Your task to perform on an android device: turn off location history Image 0: 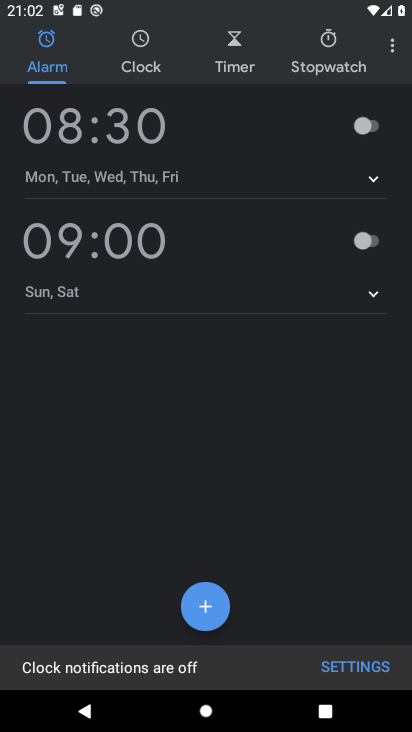
Step 0: press home button
Your task to perform on an android device: turn off location history Image 1: 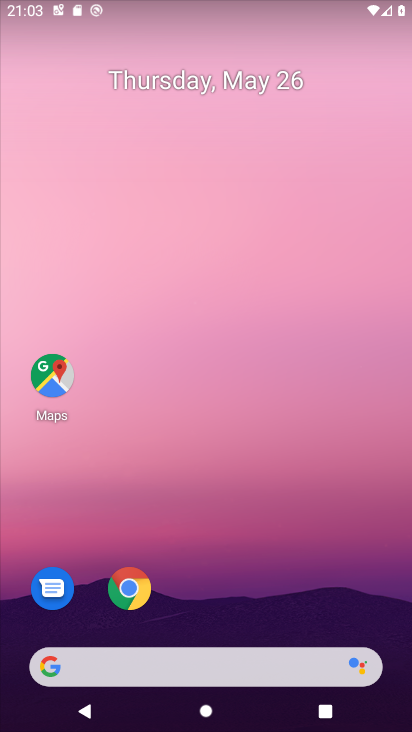
Step 1: drag from (241, 583) to (49, 418)
Your task to perform on an android device: turn off location history Image 2: 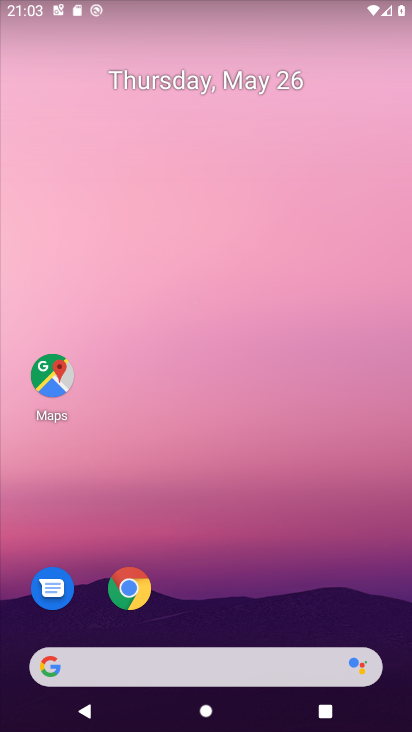
Step 2: drag from (282, 560) to (266, 0)
Your task to perform on an android device: turn off location history Image 3: 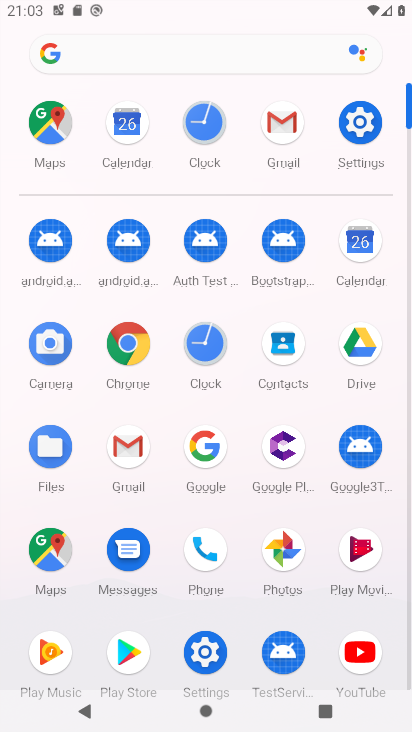
Step 3: click (192, 664)
Your task to perform on an android device: turn off location history Image 4: 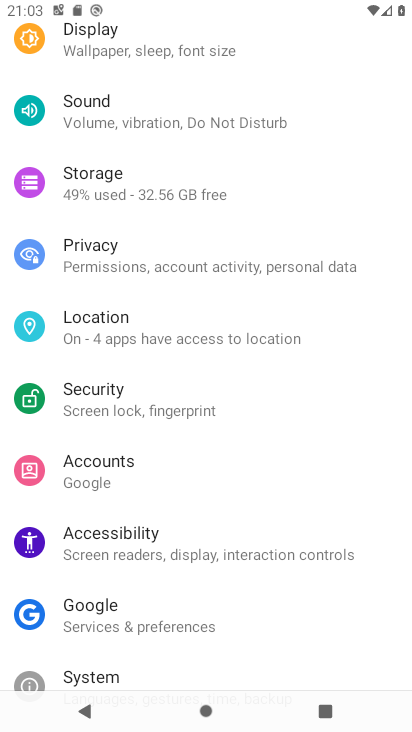
Step 4: drag from (126, 339) to (189, 562)
Your task to perform on an android device: turn off location history Image 5: 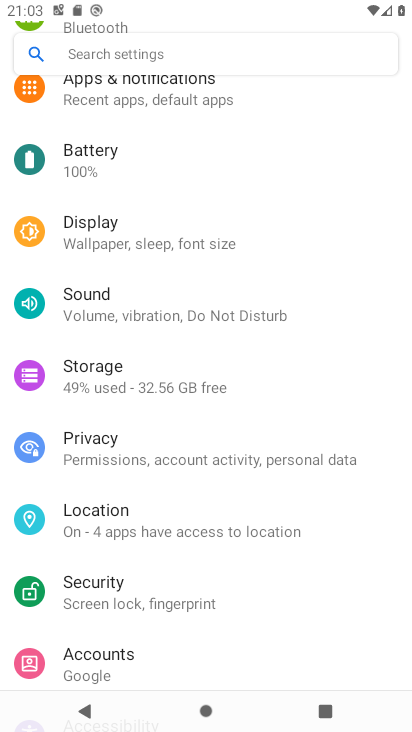
Step 5: click (117, 521)
Your task to perform on an android device: turn off location history Image 6: 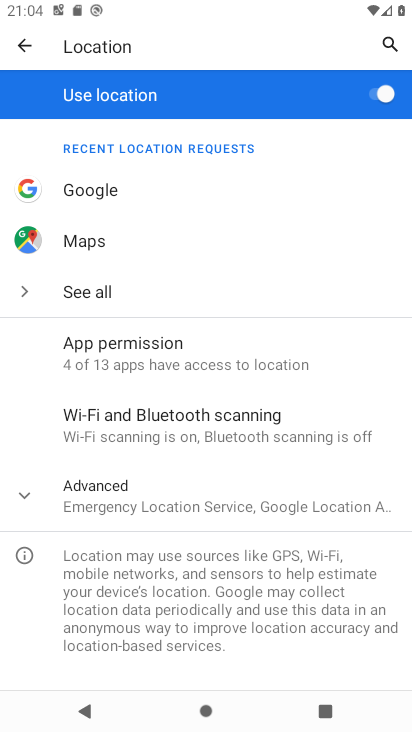
Step 6: click (153, 507)
Your task to perform on an android device: turn off location history Image 7: 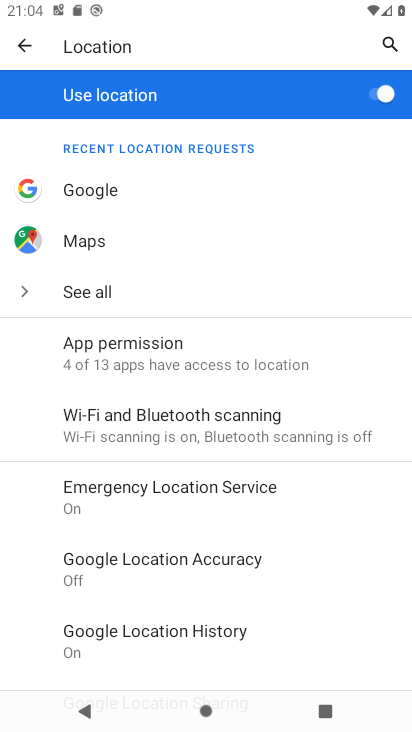
Step 7: click (163, 645)
Your task to perform on an android device: turn off location history Image 8: 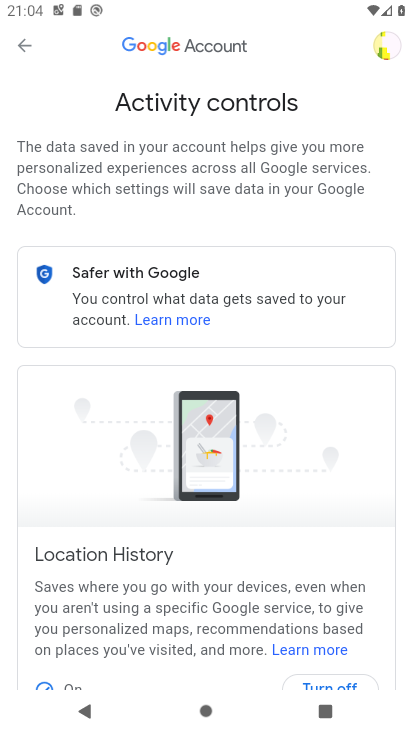
Step 8: drag from (273, 629) to (265, 91)
Your task to perform on an android device: turn off location history Image 9: 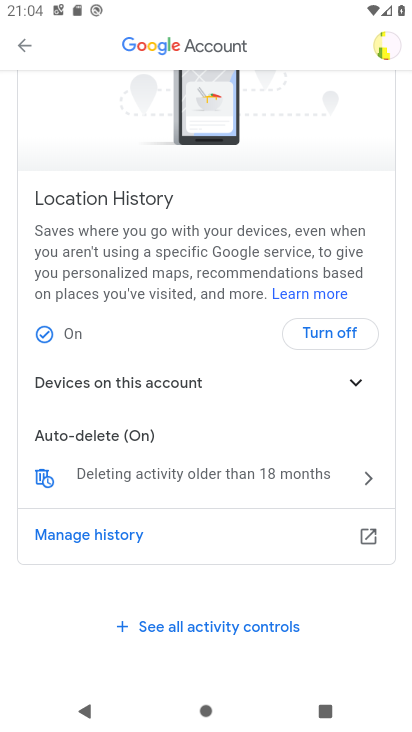
Step 9: click (336, 316)
Your task to perform on an android device: turn off location history Image 10: 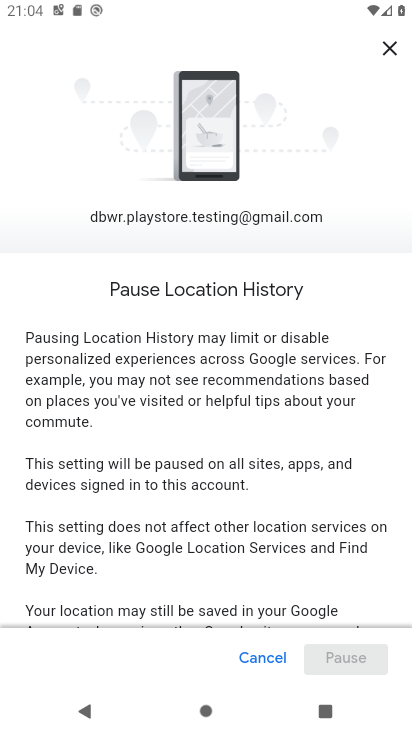
Step 10: drag from (344, 597) to (349, 70)
Your task to perform on an android device: turn off location history Image 11: 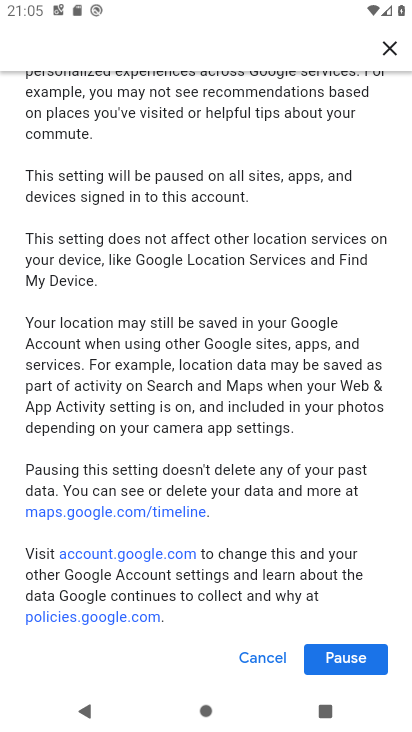
Step 11: click (327, 658)
Your task to perform on an android device: turn off location history Image 12: 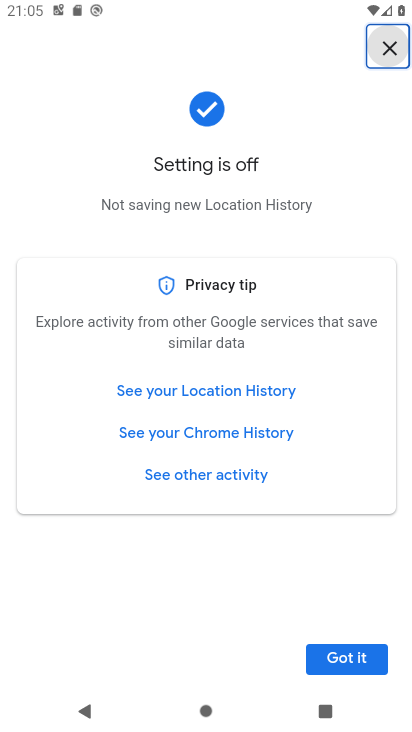
Step 12: task complete